Your task to perform on an android device: Go to Google Image 0: 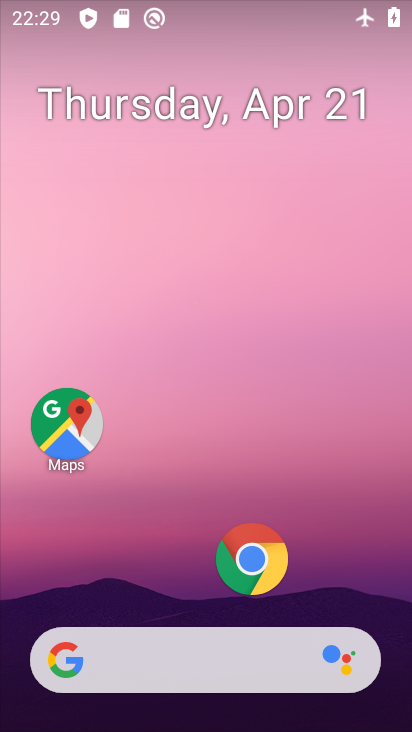
Step 0: drag from (222, 420) to (290, 113)
Your task to perform on an android device: Go to Google Image 1: 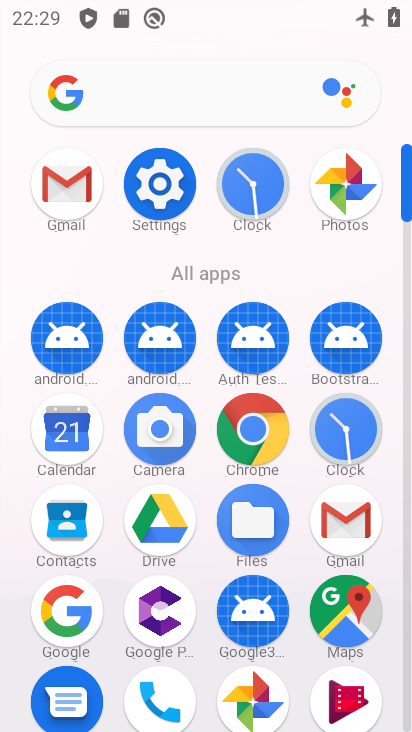
Step 1: click (63, 604)
Your task to perform on an android device: Go to Google Image 2: 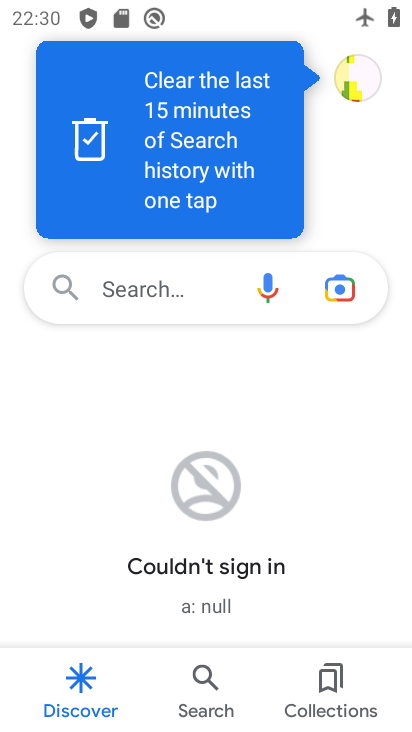
Step 2: task complete